Your task to perform on an android device: Open Google Maps and go to "Timeline" Image 0: 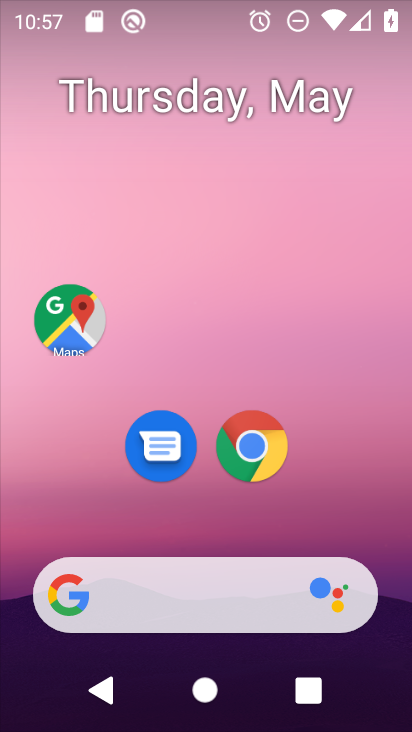
Step 0: drag from (282, 639) to (309, 182)
Your task to perform on an android device: Open Google Maps and go to "Timeline" Image 1: 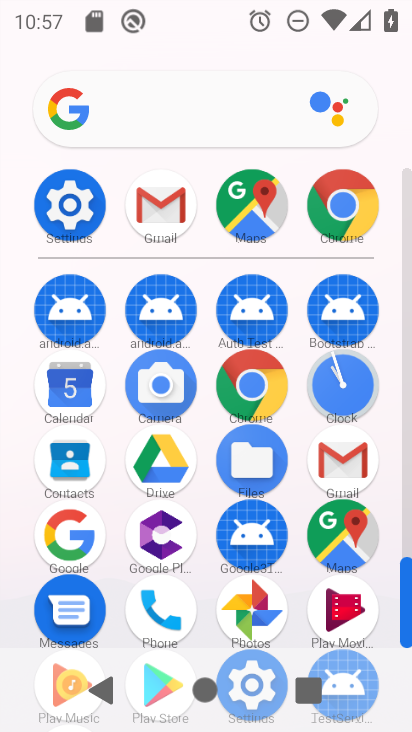
Step 1: click (264, 216)
Your task to perform on an android device: Open Google Maps and go to "Timeline" Image 2: 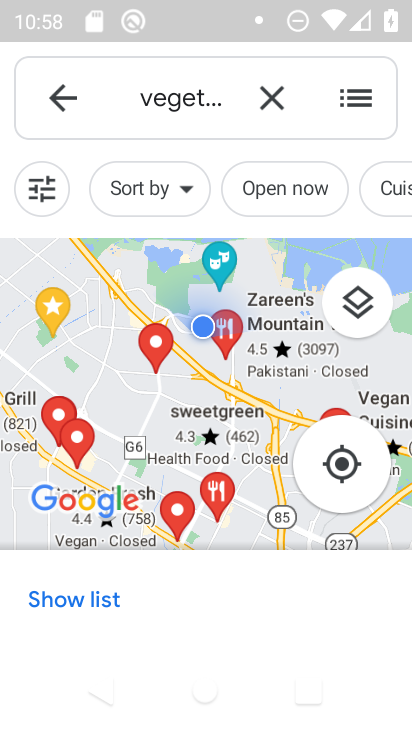
Step 2: click (64, 93)
Your task to perform on an android device: Open Google Maps and go to "Timeline" Image 3: 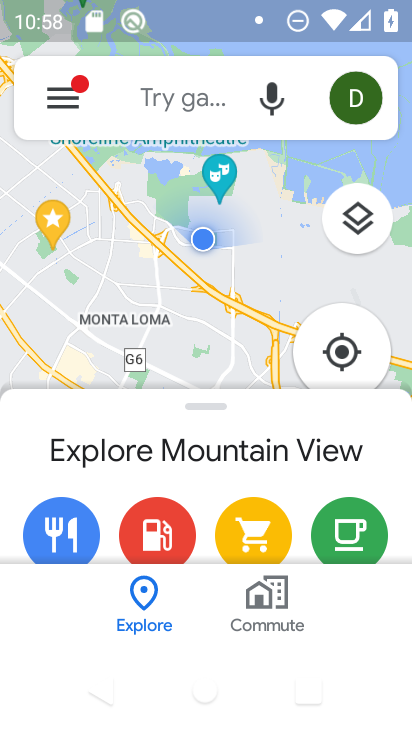
Step 3: click (58, 79)
Your task to perform on an android device: Open Google Maps and go to "Timeline" Image 4: 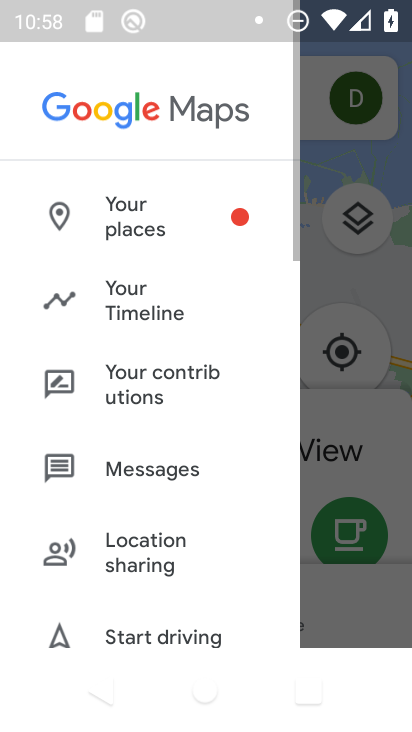
Step 4: click (143, 300)
Your task to perform on an android device: Open Google Maps and go to "Timeline" Image 5: 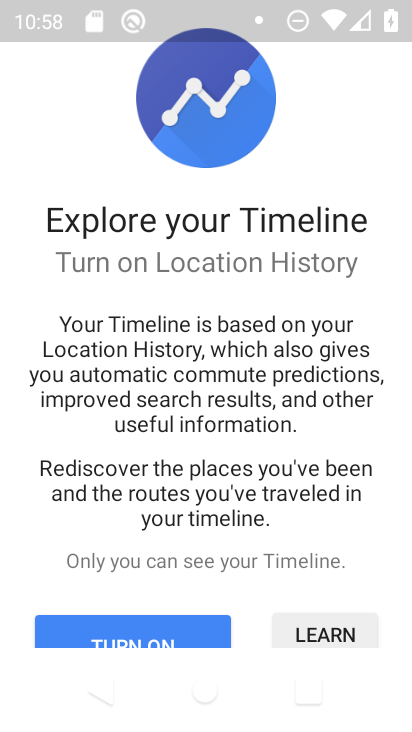
Step 5: click (122, 640)
Your task to perform on an android device: Open Google Maps and go to "Timeline" Image 6: 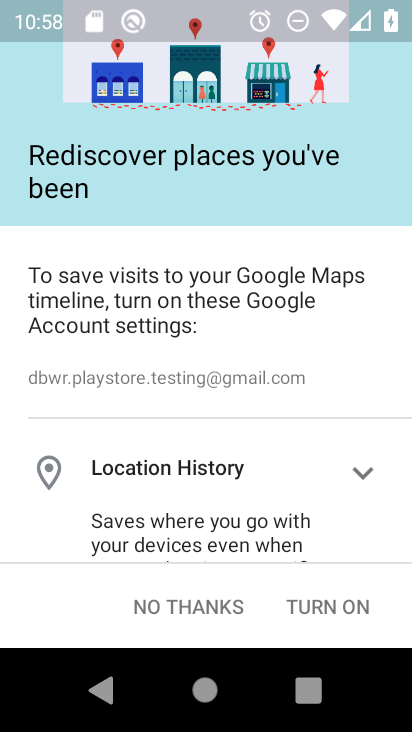
Step 6: click (165, 622)
Your task to perform on an android device: Open Google Maps and go to "Timeline" Image 7: 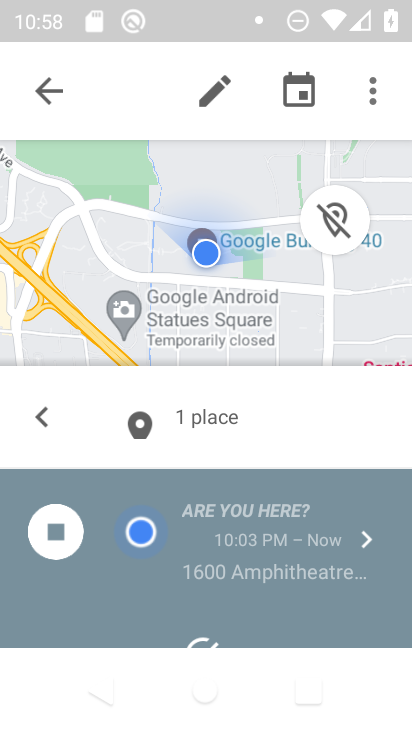
Step 7: task complete